Your task to perform on an android device: Open display settings Image 0: 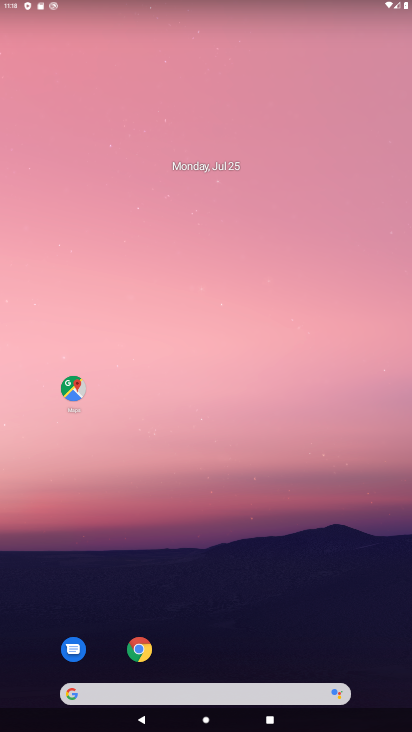
Step 0: drag from (209, 635) to (239, 157)
Your task to perform on an android device: Open display settings Image 1: 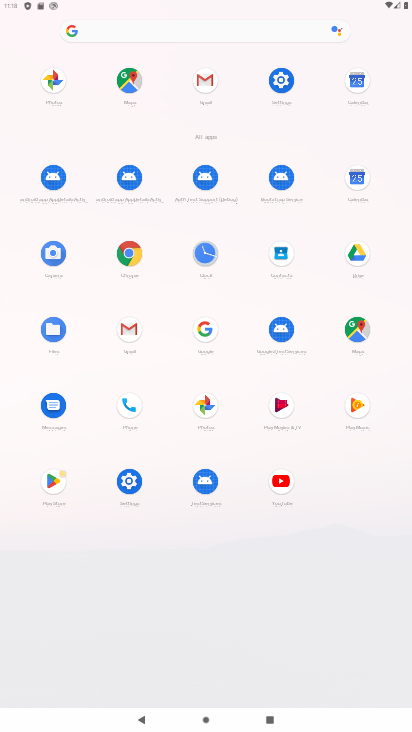
Step 1: click (128, 484)
Your task to perform on an android device: Open display settings Image 2: 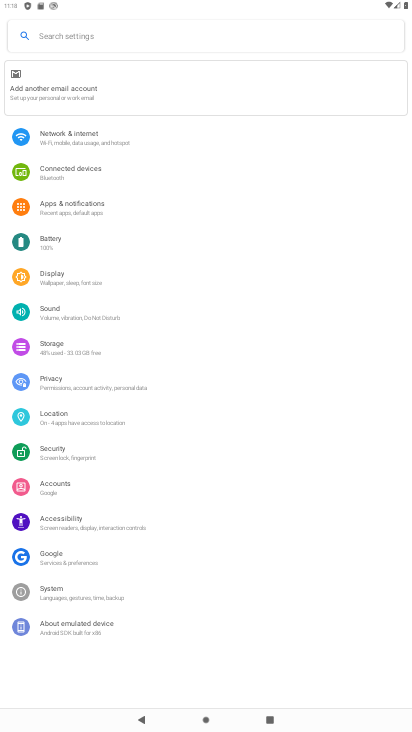
Step 2: click (51, 285)
Your task to perform on an android device: Open display settings Image 3: 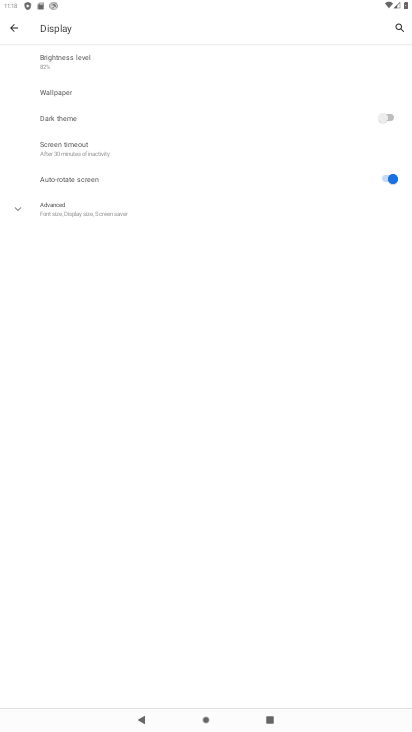
Step 3: task complete